Your task to perform on an android device: turn off javascript in the chrome app Image 0: 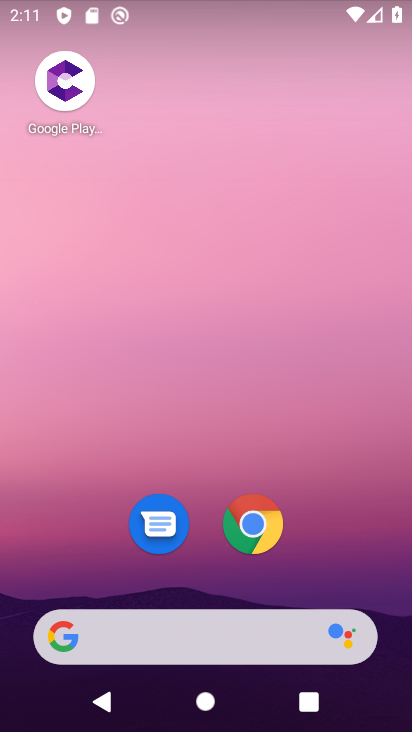
Step 0: click (255, 526)
Your task to perform on an android device: turn off javascript in the chrome app Image 1: 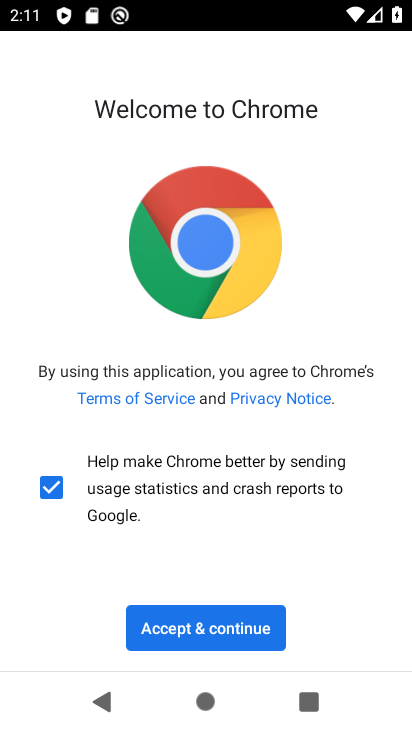
Step 1: click (241, 622)
Your task to perform on an android device: turn off javascript in the chrome app Image 2: 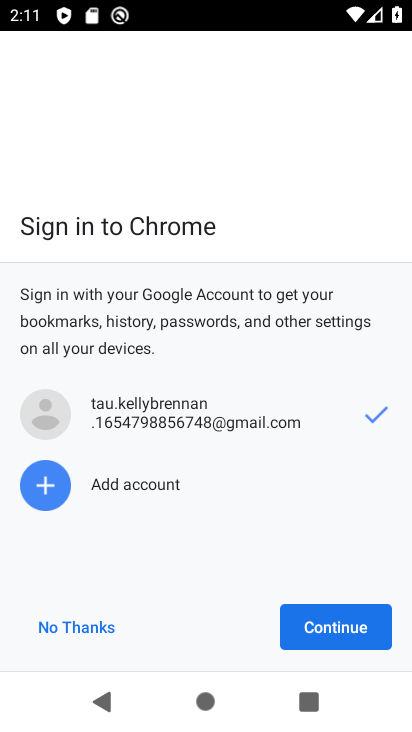
Step 2: click (309, 624)
Your task to perform on an android device: turn off javascript in the chrome app Image 3: 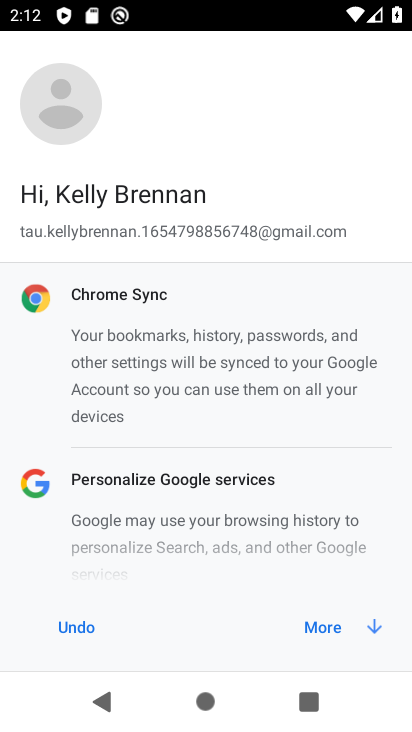
Step 3: click (309, 624)
Your task to perform on an android device: turn off javascript in the chrome app Image 4: 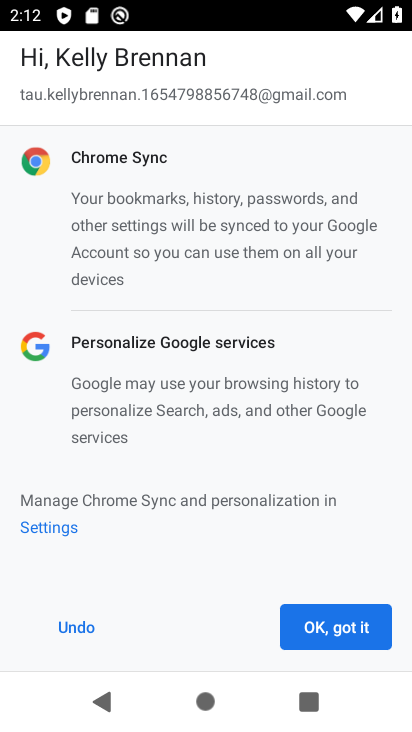
Step 4: click (309, 624)
Your task to perform on an android device: turn off javascript in the chrome app Image 5: 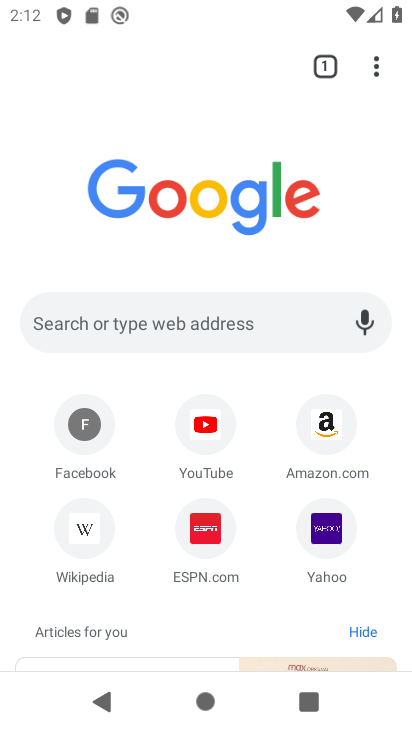
Step 5: click (378, 68)
Your task to perform on an android device: turn off javascript in the chrome app Image 6: 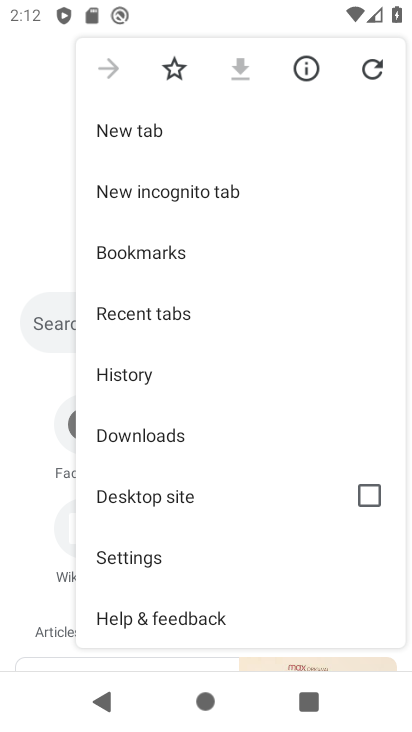
Step 6: click (155, 557)
Your task to perform on an android device: turn off javascript in the chrome app Image 7: 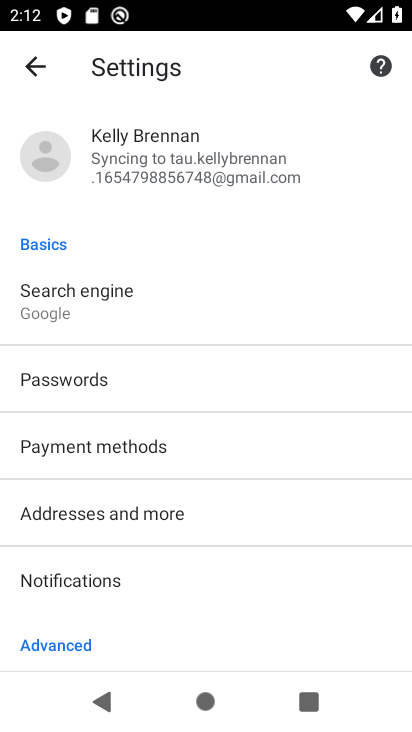
Step 7: drag from (184, 563) to (189, 380)
Your task to perform on an android device: turn off javascript in the chrome app Image 8: 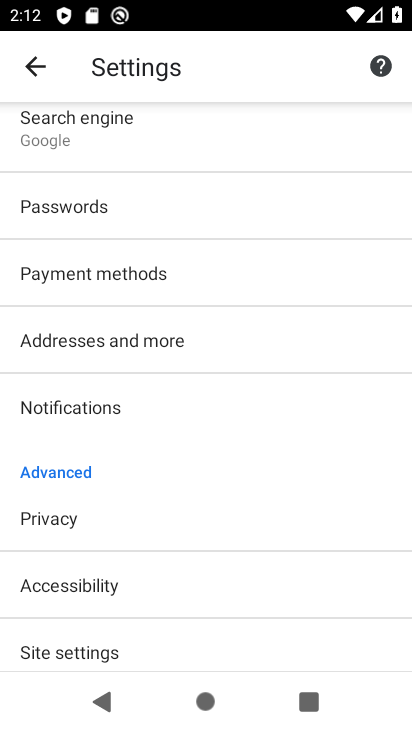
Step 8: click (94, 652)
Your task to perform on an android device: turn off javascript in the chrome app Image 9: 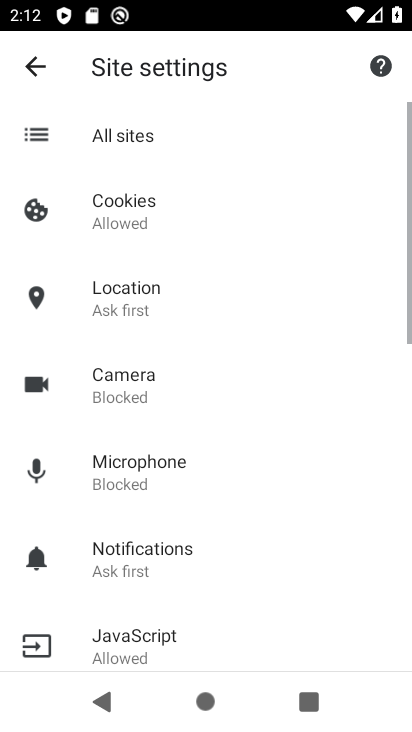
Step 9: drag from (240, 526) to (271, 231)
Your task to perform on an android device: turn off javascript in the chrome app Image 10: 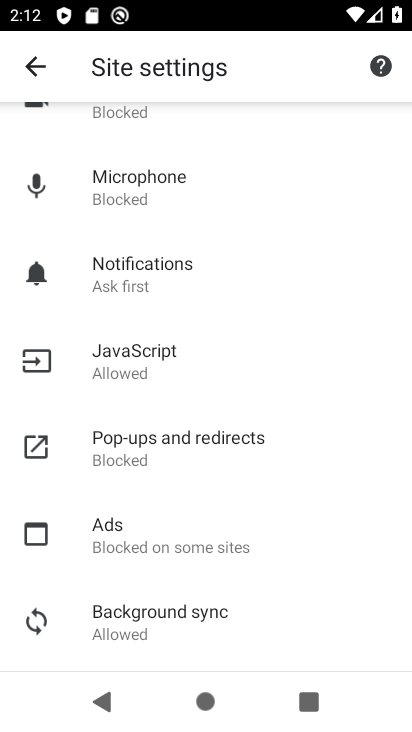
Step 10: click (169, 355)
Your task to perform on an android device: turn off javascript in the chrome app Image 11: 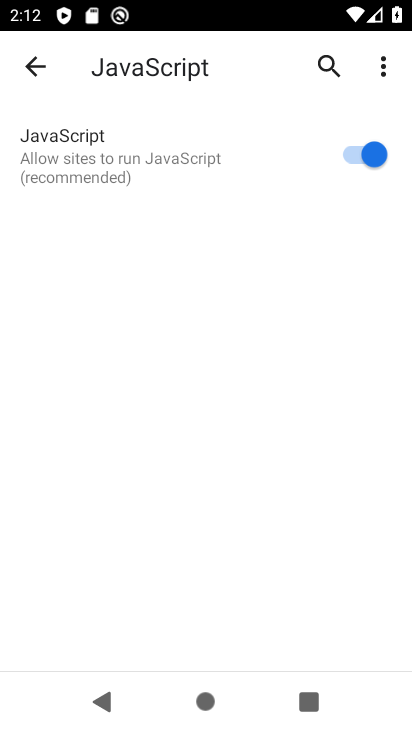
Step 11: click (361, 151)
Your task to perform on an android device: turn off javascript in the chrome app Image 12: 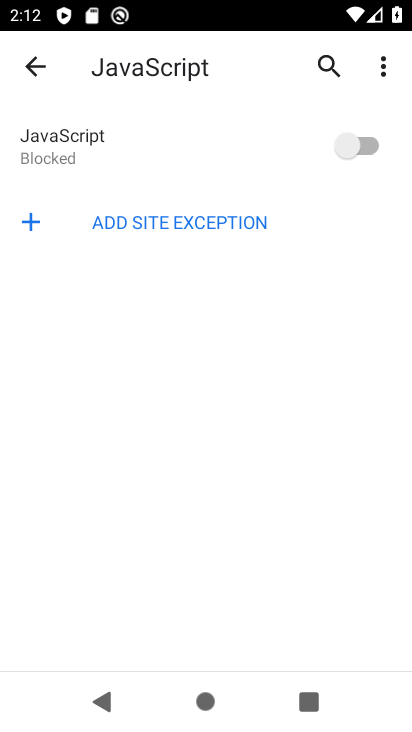
Step 12: task complete